Your task to perform on an android device: Set the phone to "Do not disturb". Image 0: 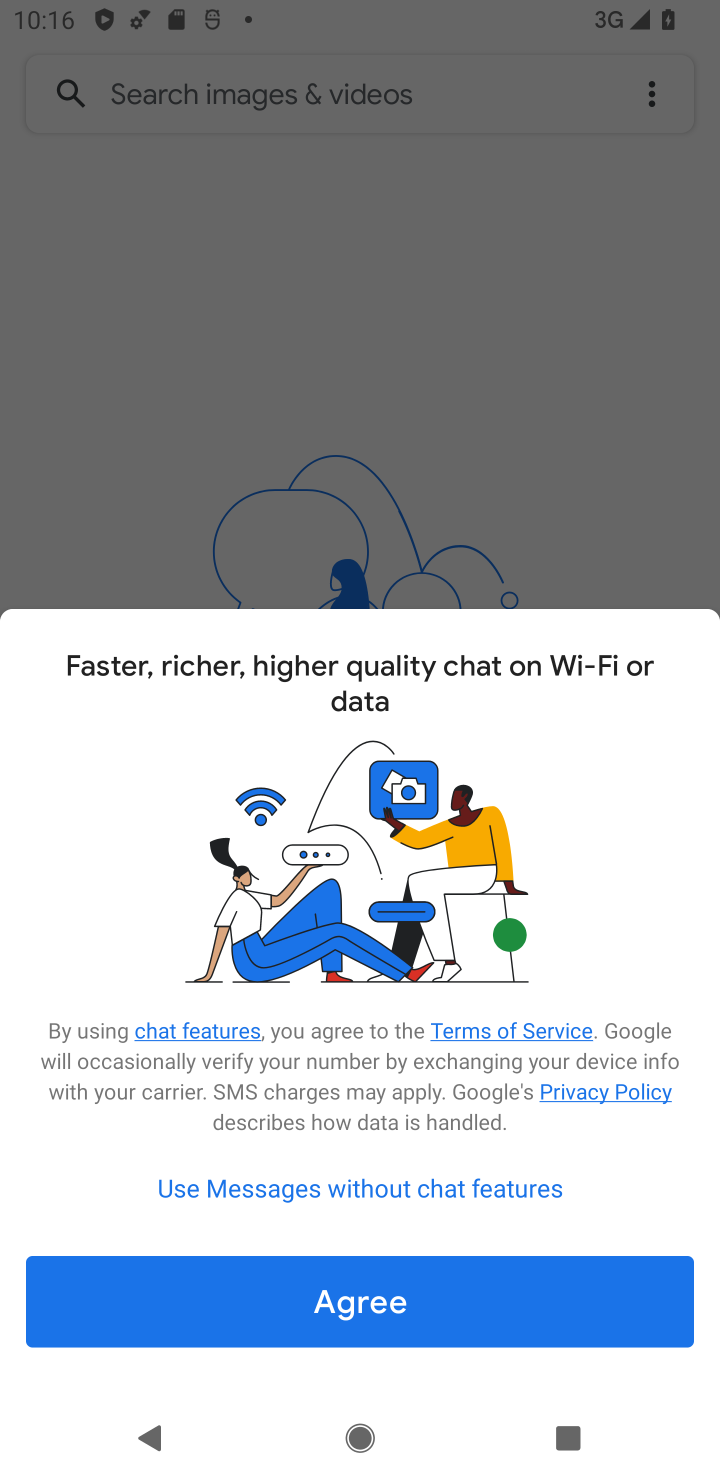
Step 0: press home button
Your task to perform on an android device: Set the phone to "Do not disturb". Image 1: 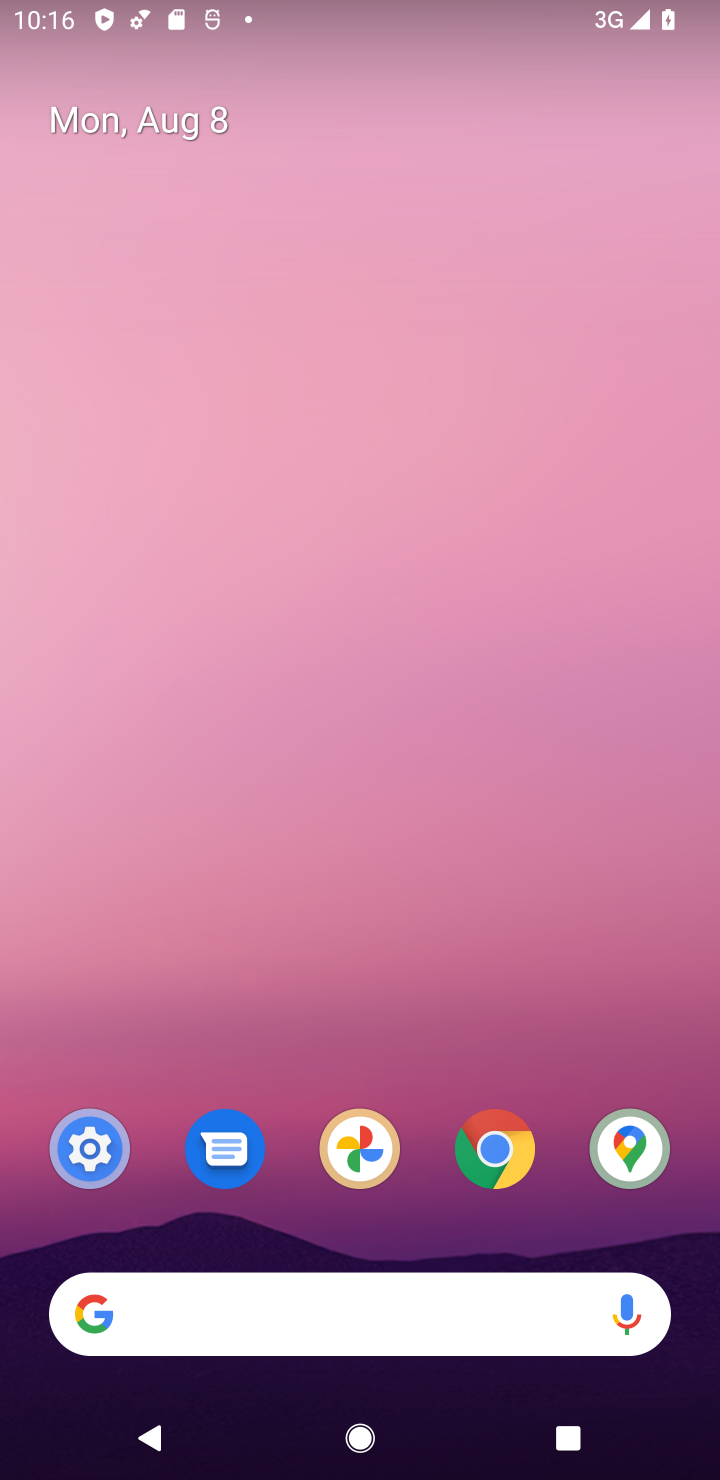
Step 1: drag from (237, 1148) to (122, 662)
Your task to perform on an android device: Set the phone to "Do not disturb". Image 2: 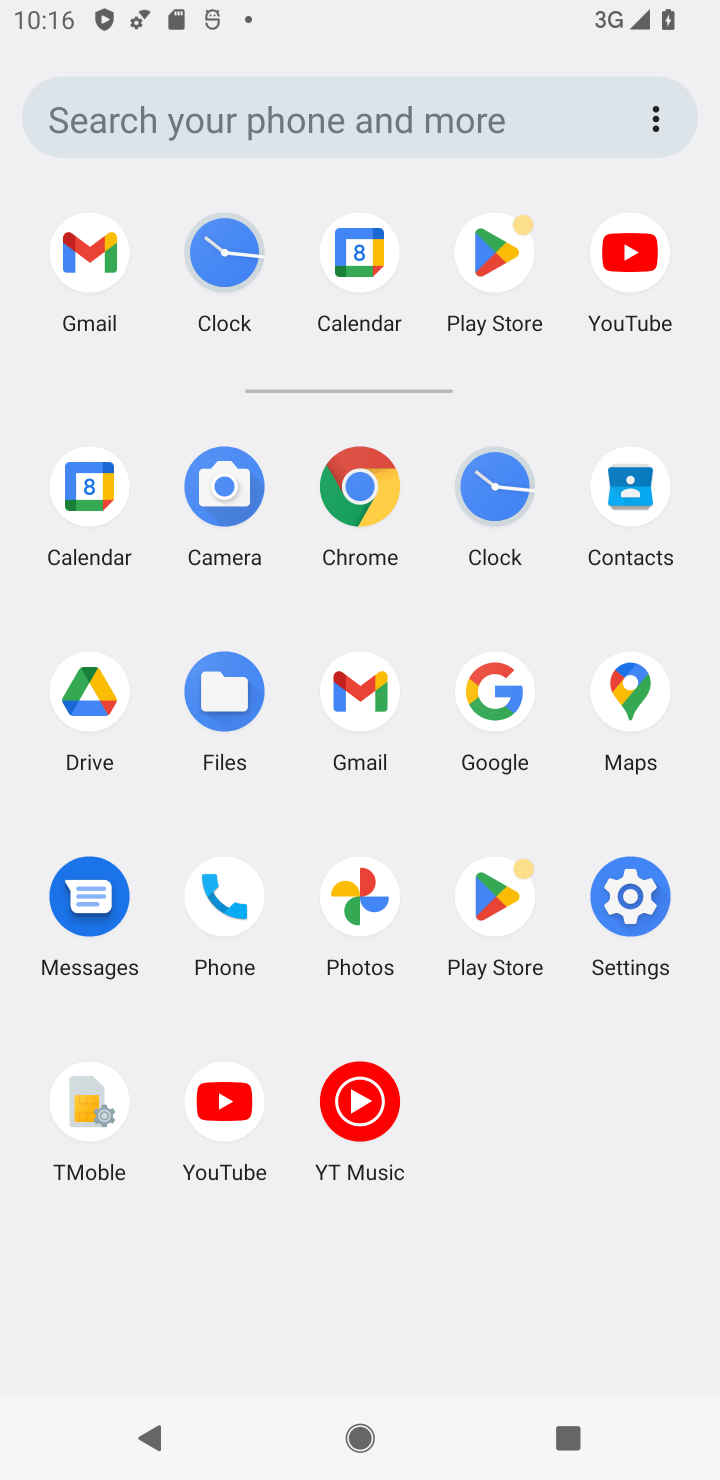
Step 2: click (628, 904)
Your task to perform on an android device: Set the phone to "Do not disturb". Image 3: 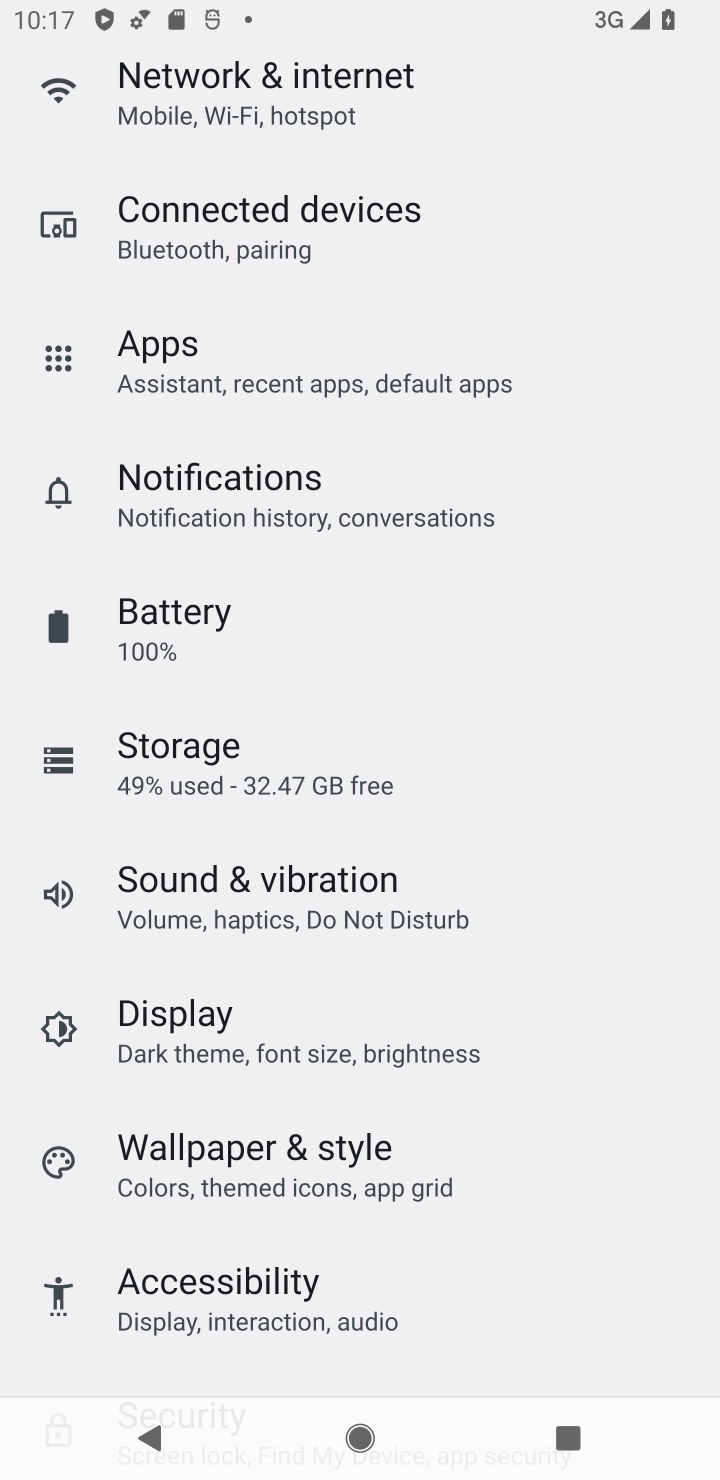
Step 3: drag from (200, 210) to (343, 1079)
Your task to perform on an android device: Set the phone to "Do not disturb". Image 4: 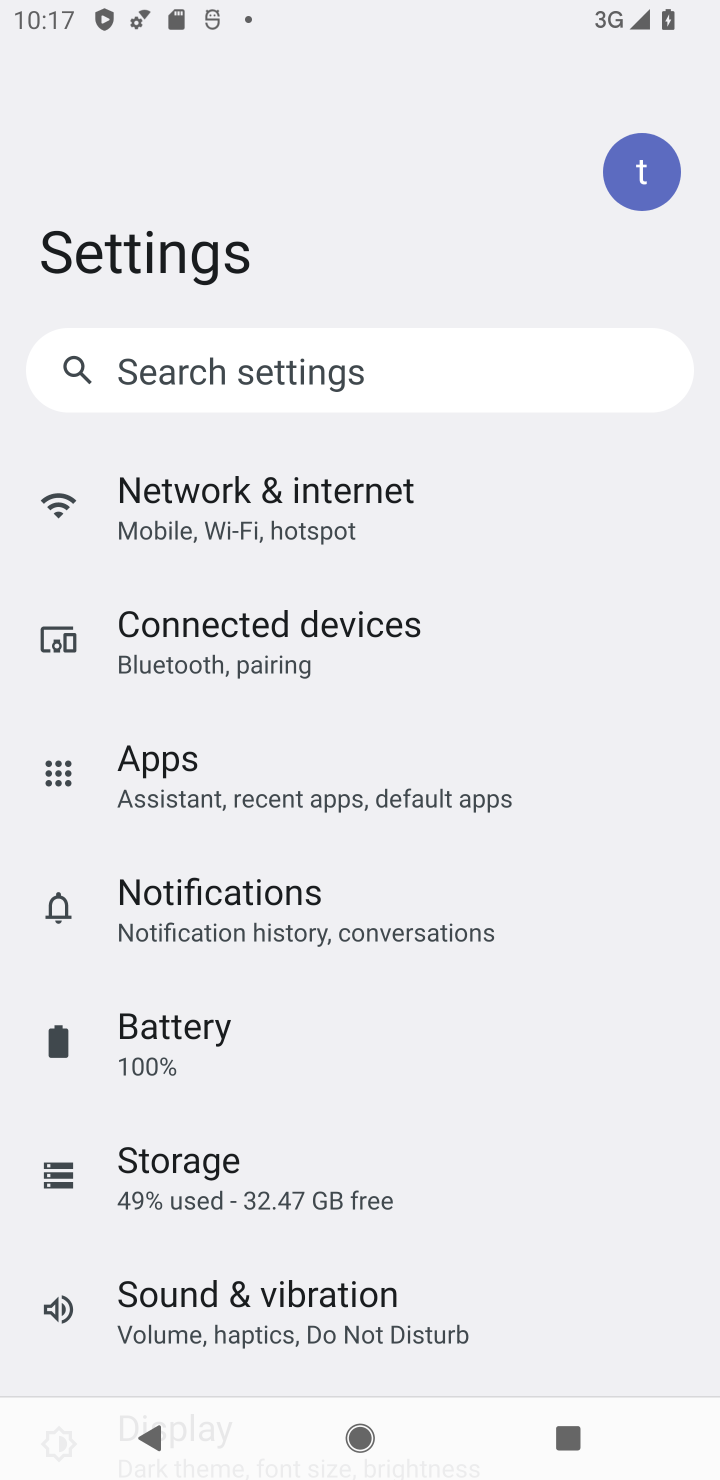
Step 4: drag from (276, 1324) to (282, 659)
Your task to perform on an android device: Set the phone to "Do not disturb". Image 5: 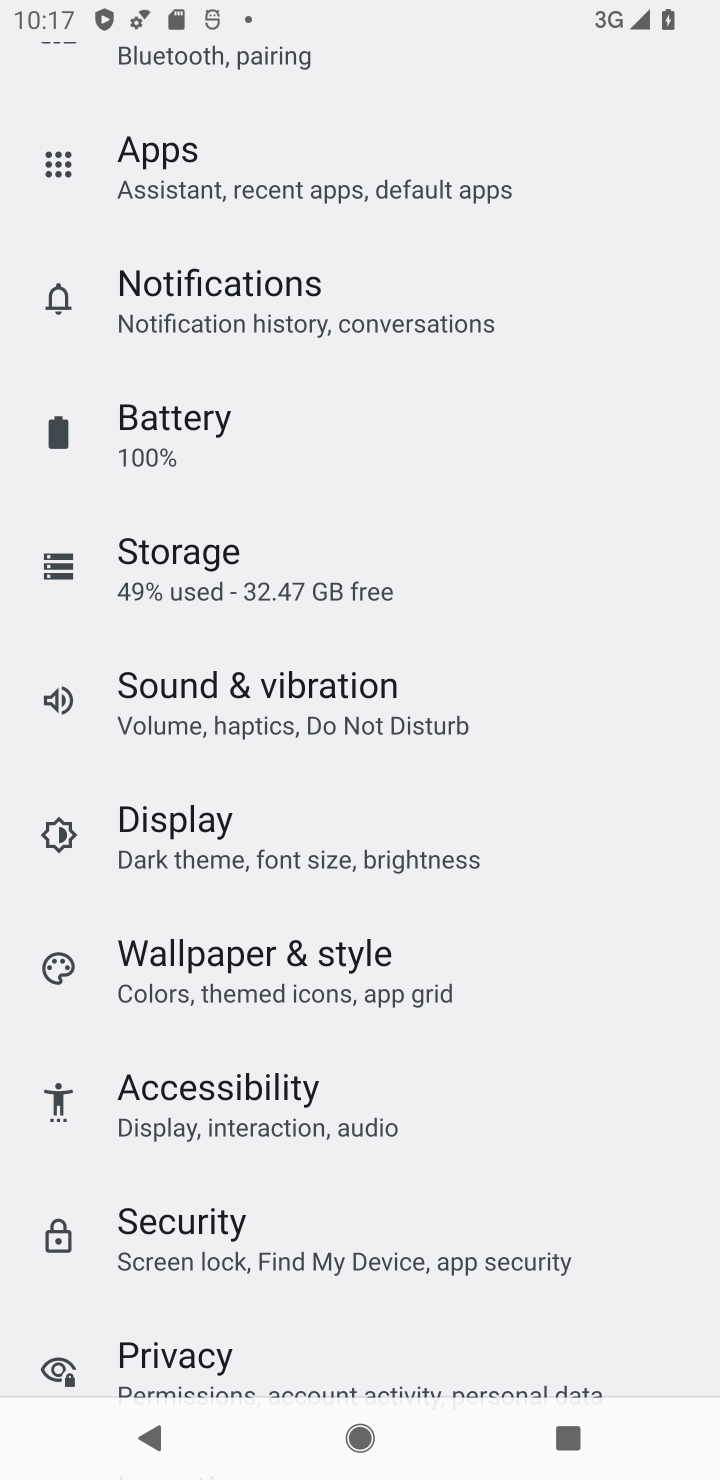
Step 5: click (301, 693)
Your task to perform on an android device: Set the phone to "Do not disturb". Image 6: 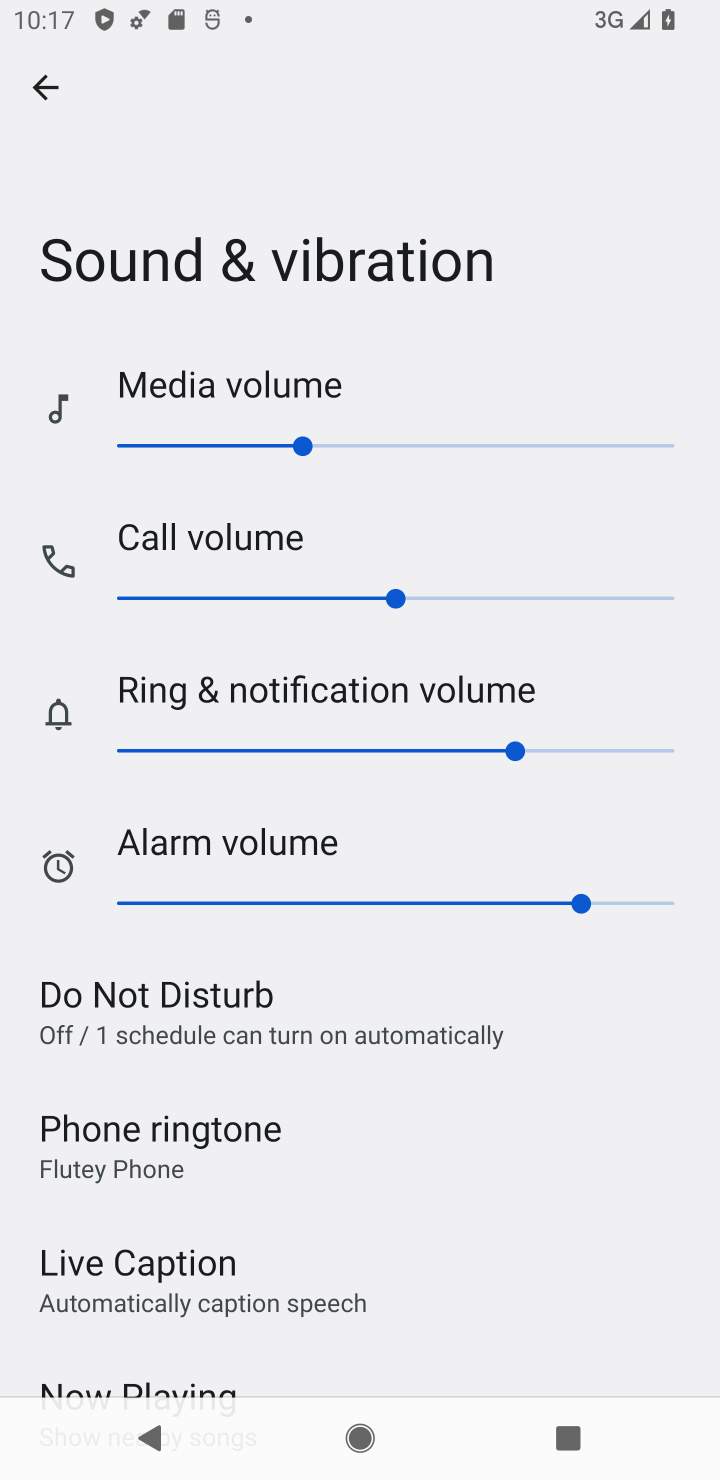
Step 6: click (215, 979)
Your task to perform on an android device: Set the phone to "Do not disturb". Image 7: 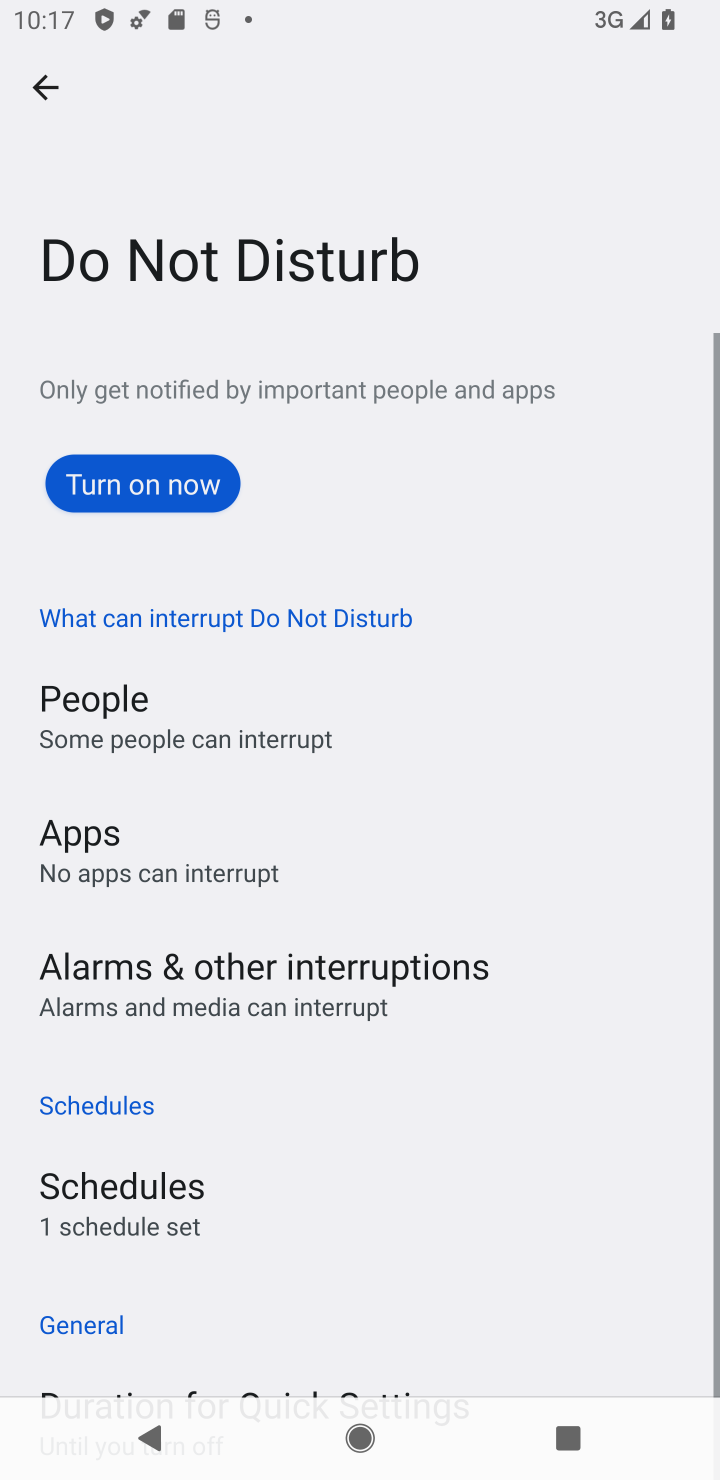
Step 7: click (121, 481)
Your task to perform on an android device: Set the phone to "Do not disturb". Image 8: 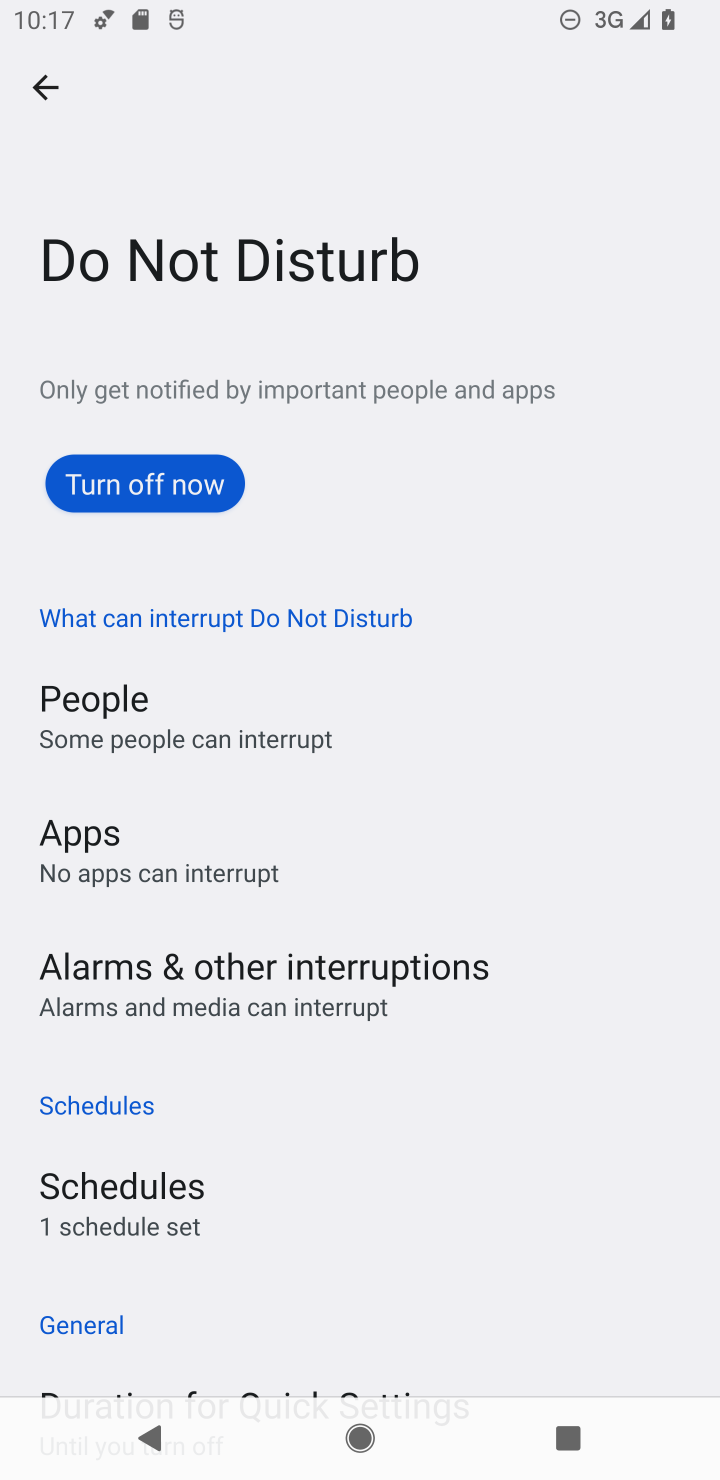
Step 8: task complete